Your task to perform on an android device: Open maps Image 0: 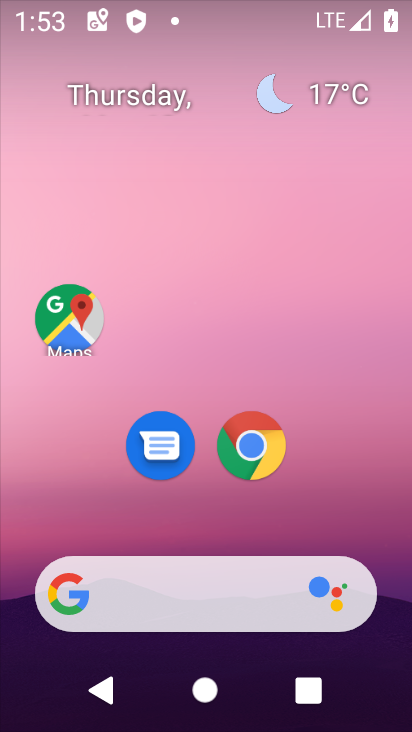
Step 0: click (70, 329)
Your task to perform on an android device: Open maps Image 1: 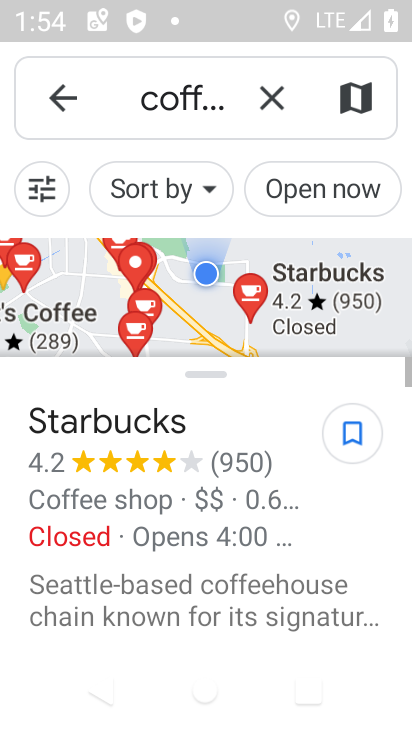
Step 1: click (266, 100)
Your task to perform on an android device: Open maps Image 2: 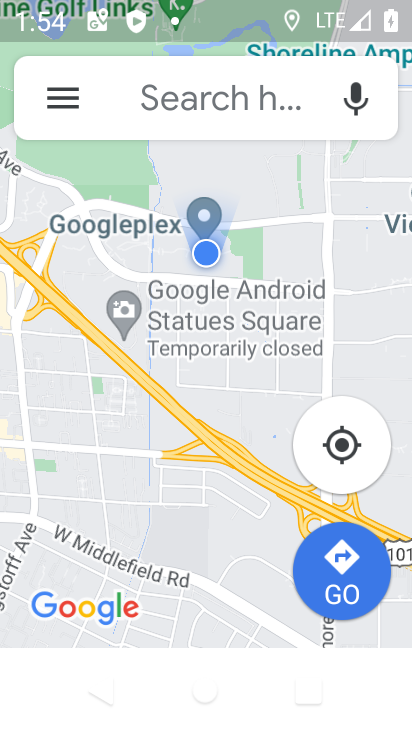
Step 2: click (197, 102)
Your task to perform on an android device: Open maps Image 3: 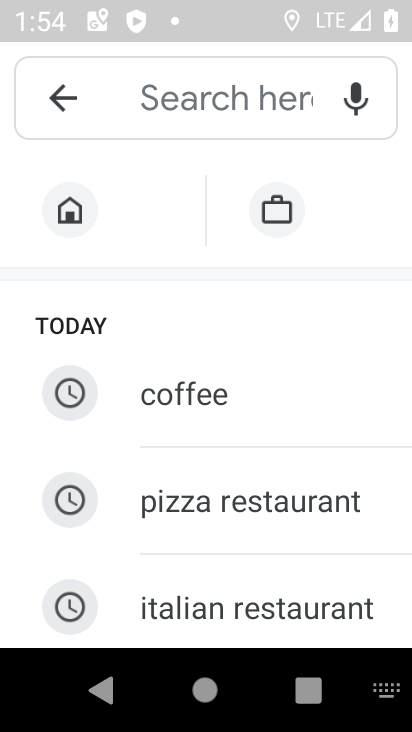
Step 3: task complete